Your task to perform on an android device: toggle pop-ups in chrome Image 0: 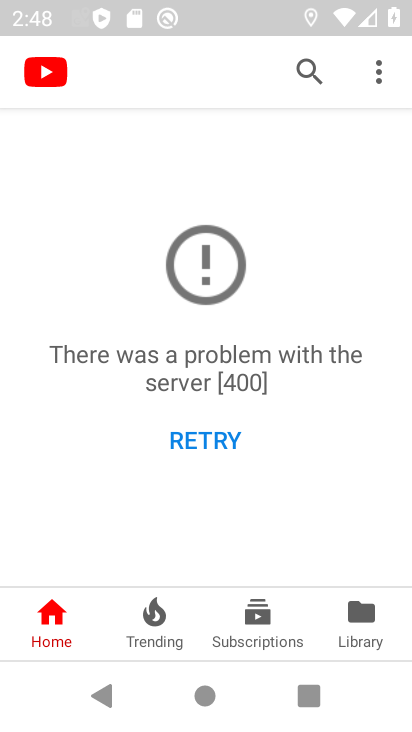
Step 0: press back button
Your task to perform on an android device: toggle pop-ups in chrome Image 1: 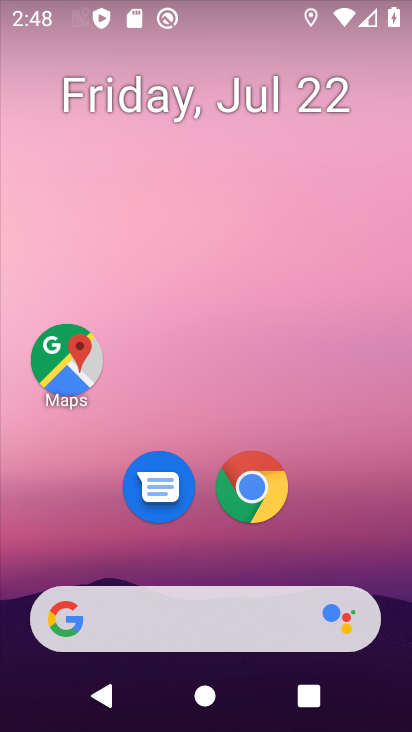
Step 1: click (261, 490)
Your task to perform on an android device: toggle pop-ups in chrome Image 2: 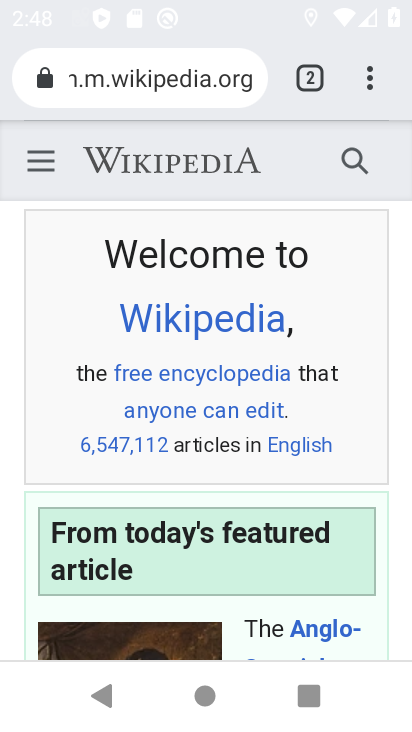
Step 2: drag from (372, 71) to (87, 529)
Your task to perform on an android device: toggle pop-ups in chrome Image 3: 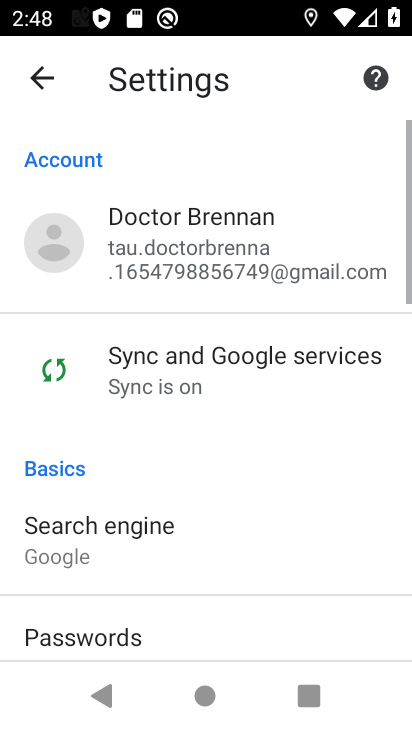
Step 3: drag from (94, 573) to (288, 105)
Your task to perform on an android device: toggle pop-ups in chrome Image 4: 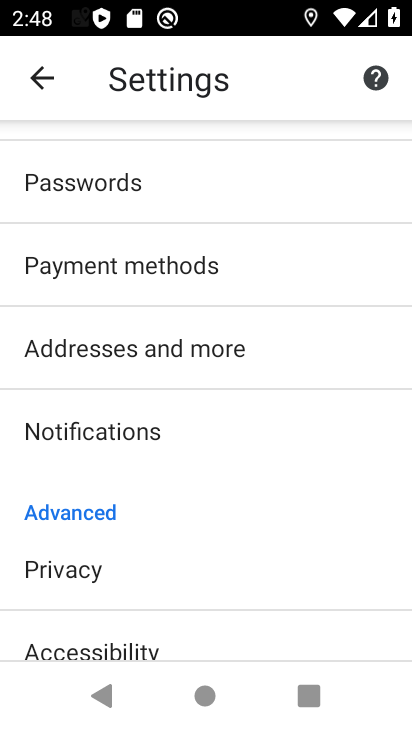
Step 4: drag from (151, 613) to (262, 245)
Your task to perform on an android device: toggle pop-ups in chrome Image 5: 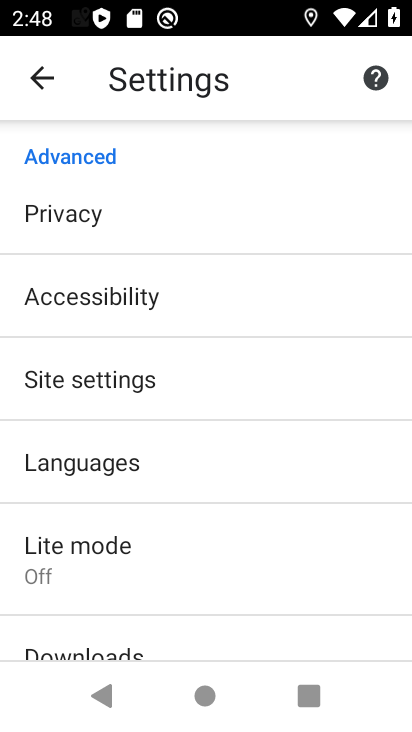
Step 5: click (75, 367)
Your task to perform on an android device: toggle pop-ups in chrome Image 6: 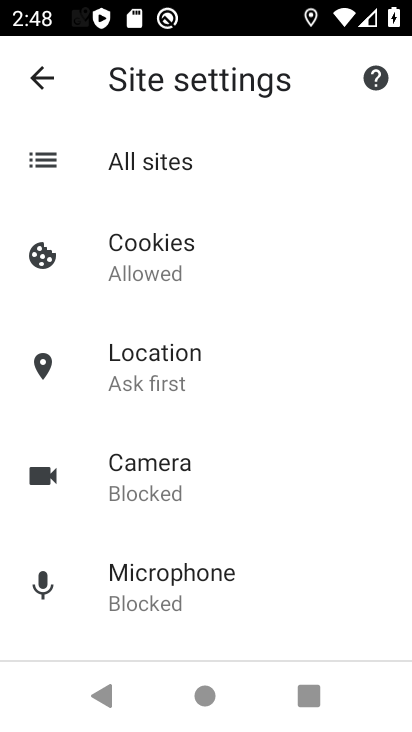
Step 6: drag from (171, 573) to (281, 207)
Your task to perform on an android device: toggle pop-ups in chrome Image 7: 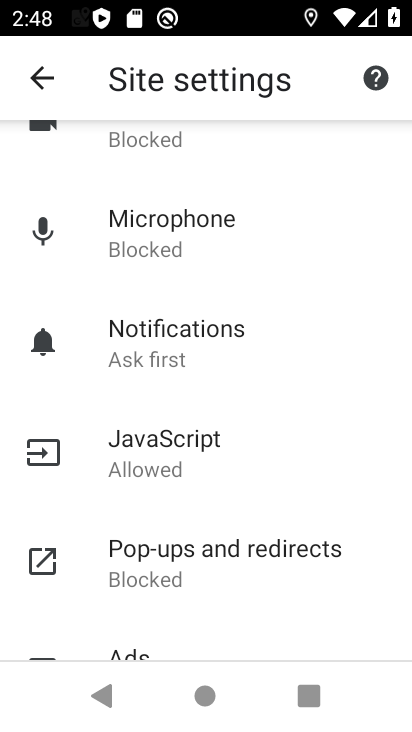
Step 7: click (139, 562)
Your task to perform on an android device: toggle pop-ups in chrome Image 8: 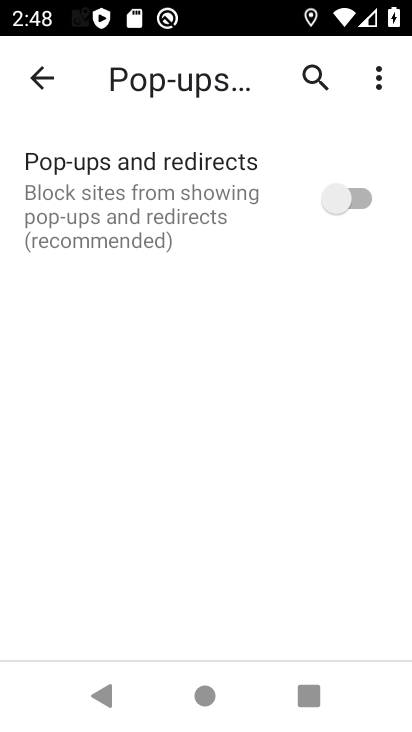
Step 8: click (324, 198)
Your task to perform on an android device: toggle pop-ups in chrome Image 9: 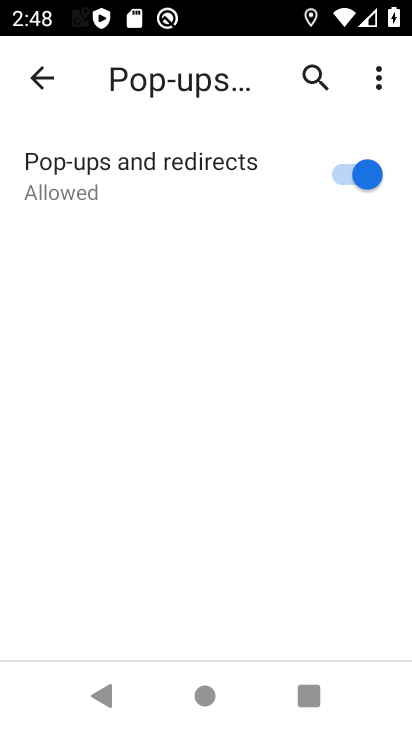
Step 9: task complete